Your task to perform on an android device: make emails show in primary in the gmail app Image 0: 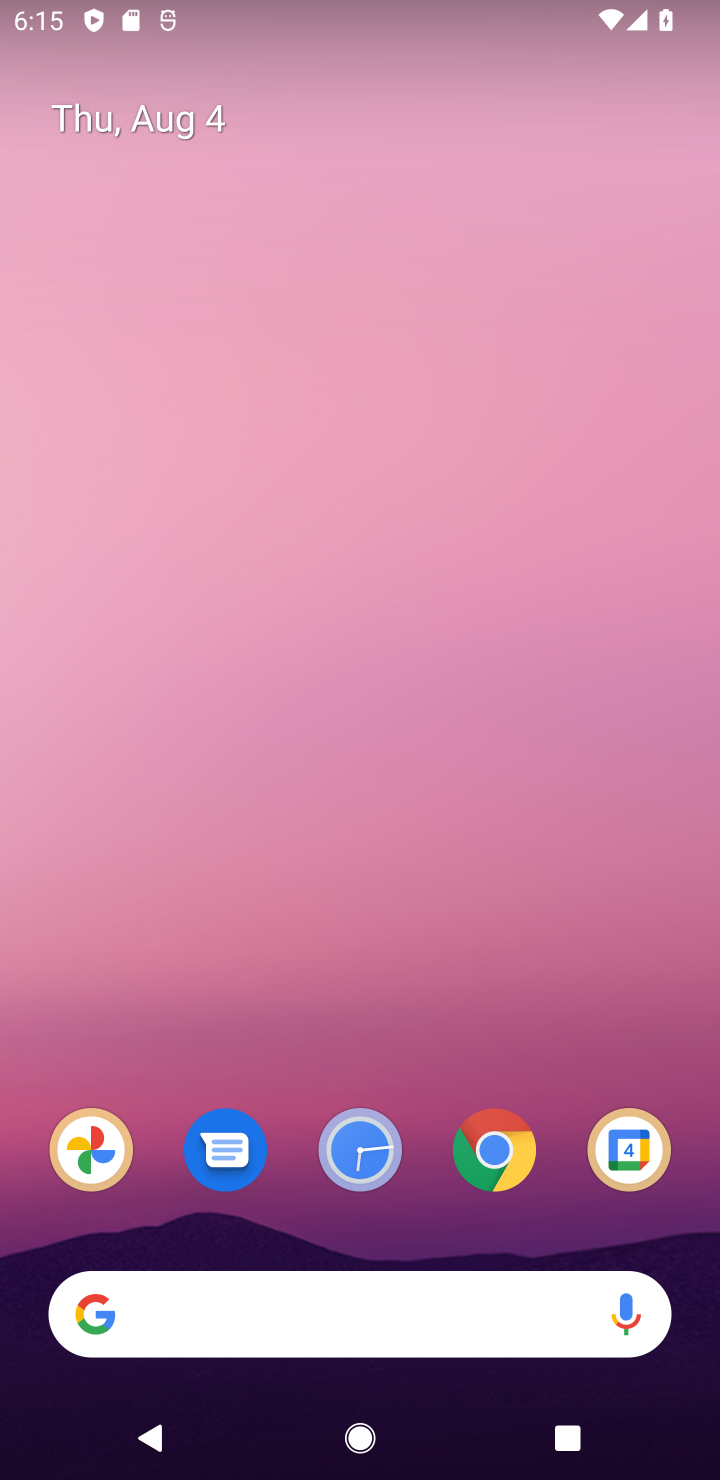
Step 0: drag from (382, 1188) to (215, 19)
Your task to perform on an android device: make emails show in primary in the gmail app Image 1: 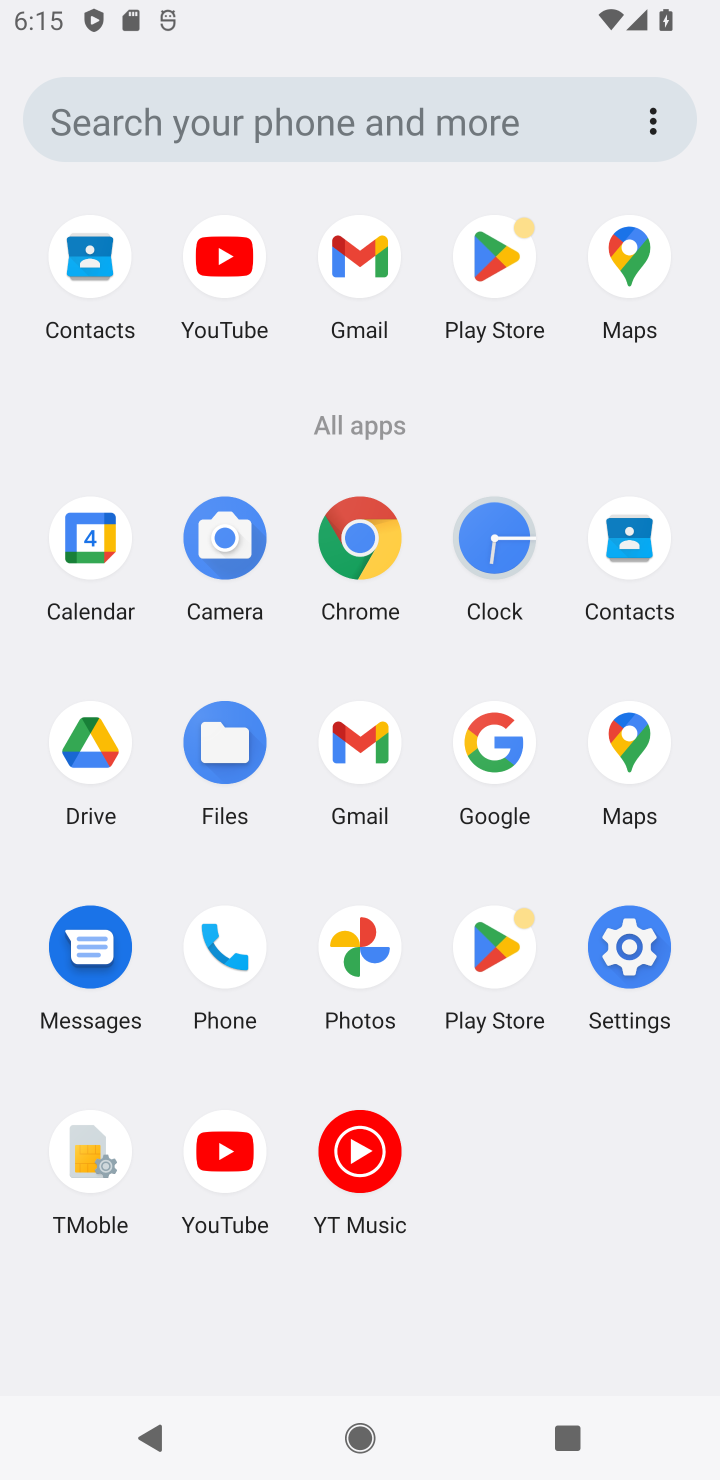
Step 1: click (347, 730)
Your task to perform on an android device: make emails show in primary in the gmail app Image 2: 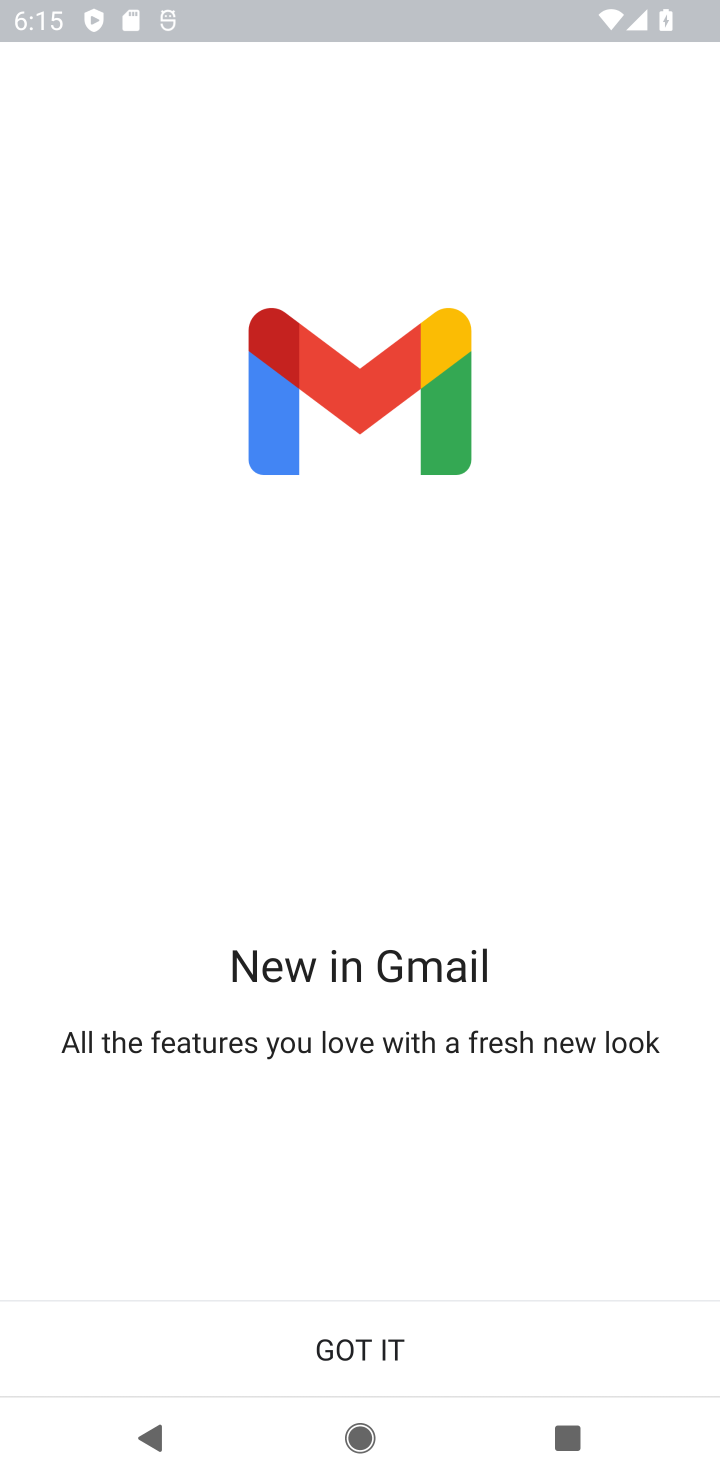
Step 2: click (408, 1345)
Your task to perform on an android device: make emails show in primary in the gmail app Image 3: 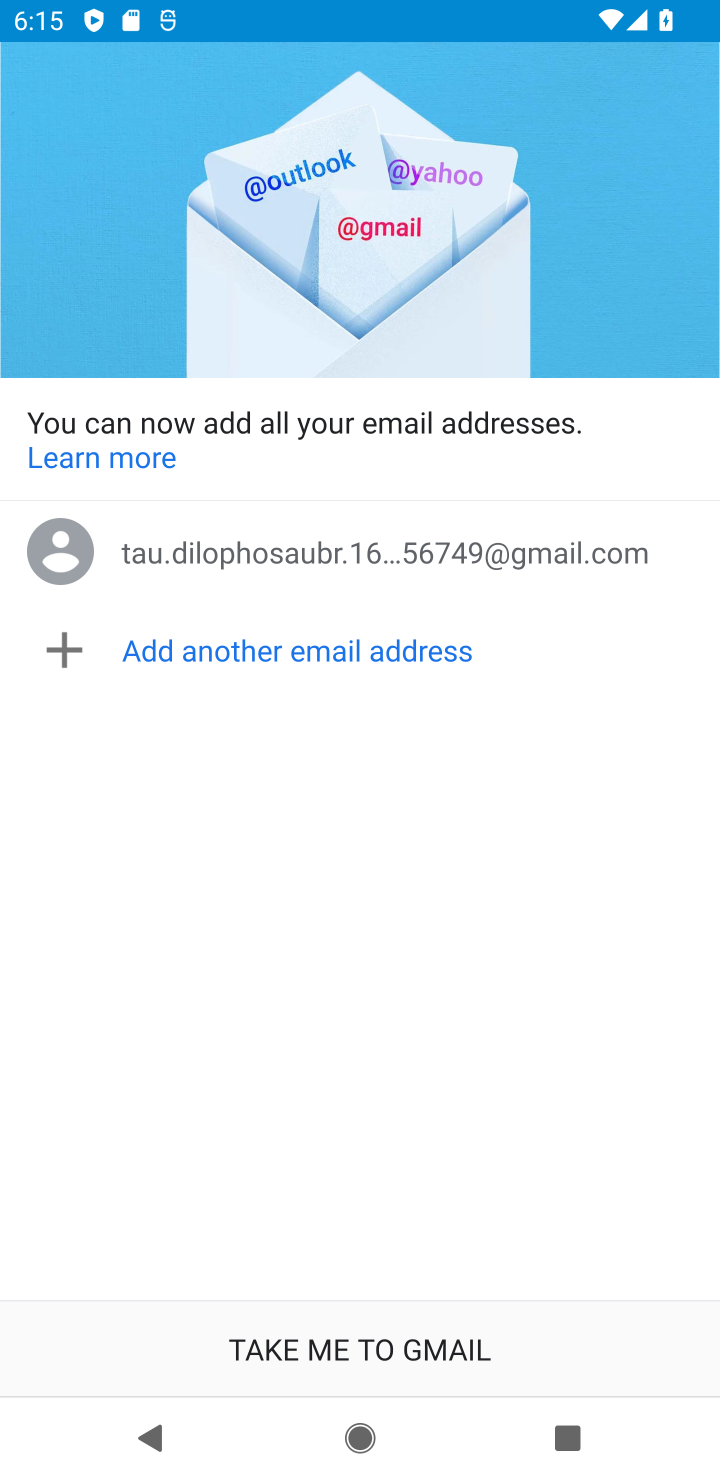
Step 3: click (408, 1345)
Your task to perform on an android device: make emails show in primary in the gmail app Image 4: 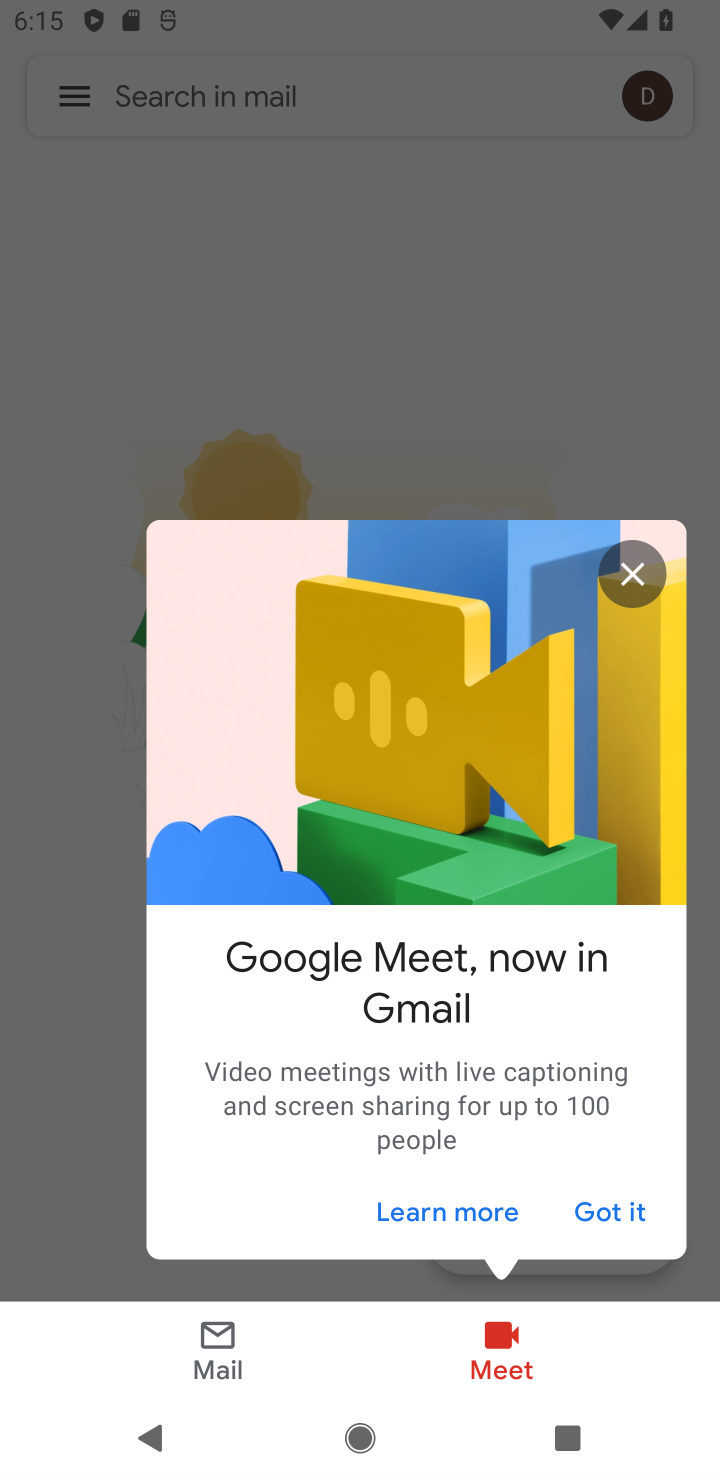
Step 4: click (624, 1200)
Your task to perform on an android device: make emails show in primary in the gmail app Image 5: 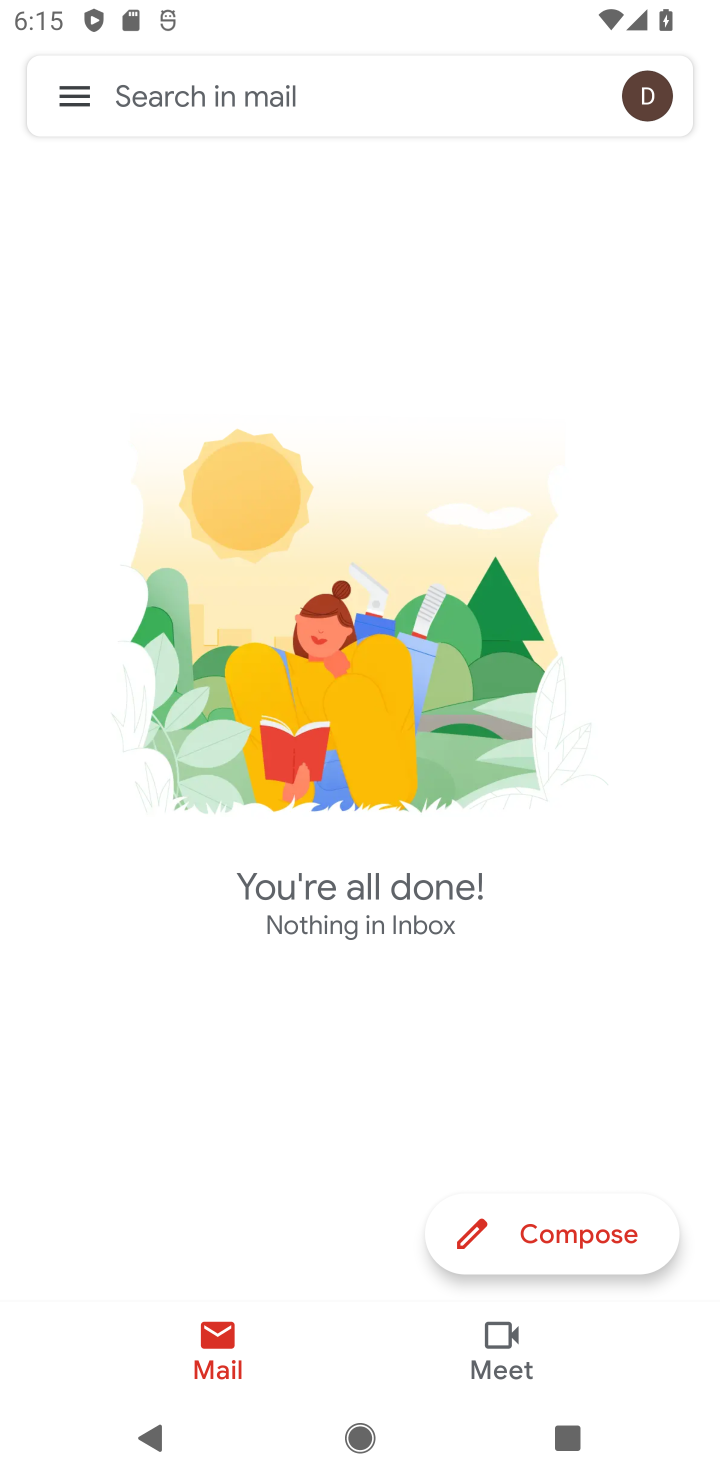
Step 5: click (77, 87)
Your task to perform on an android device: make emails show in primary in the gmail app Image 6: 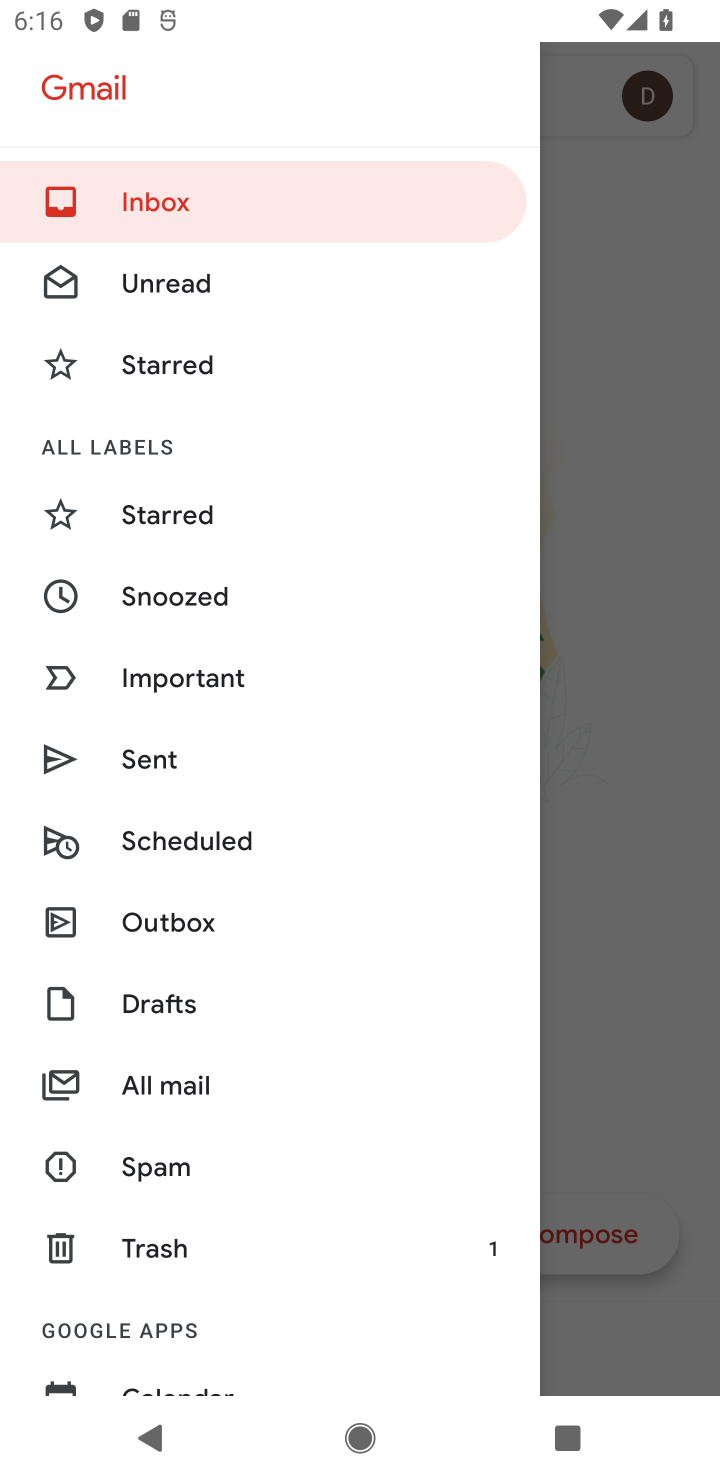
Step 6: drag from (74, 1316) to (134, 344)
Your task to perform on an android device: make emails show in primary in the gmail app Image 7: 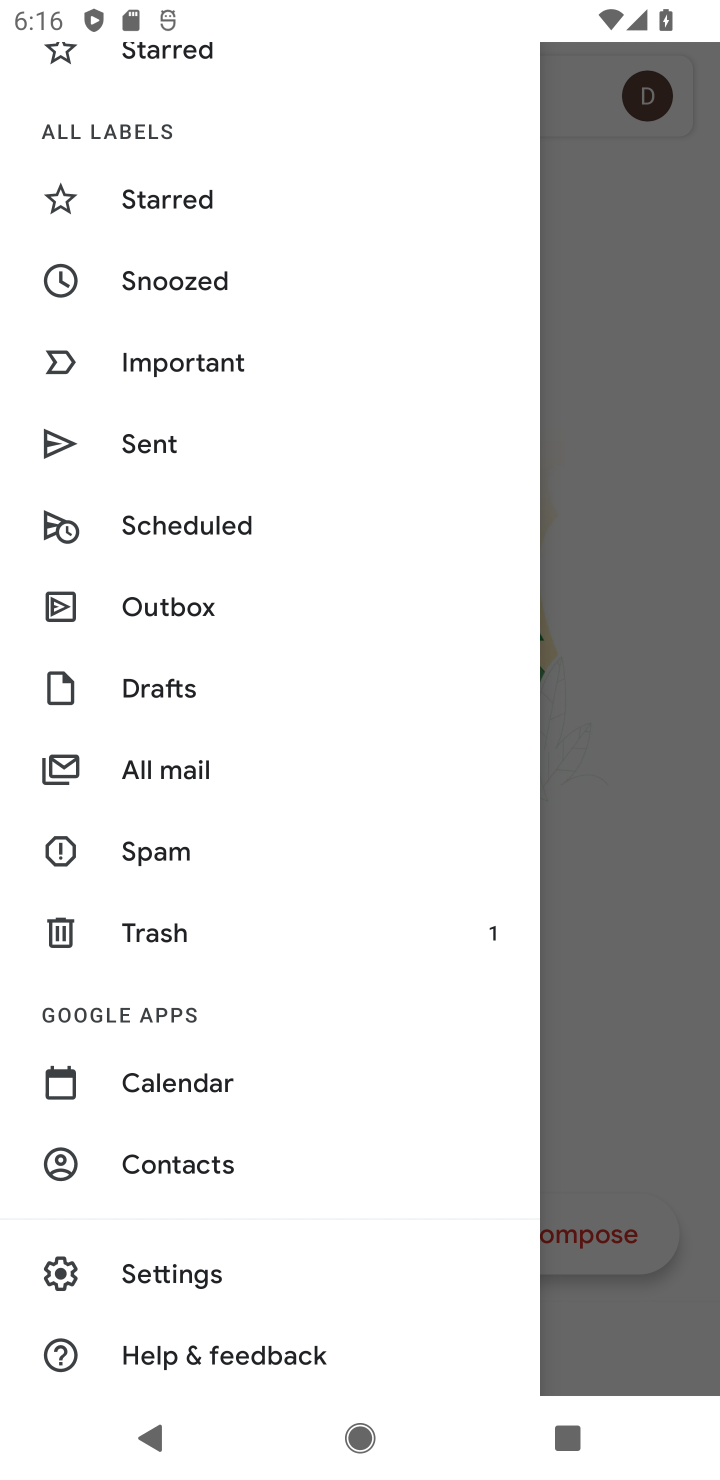
Step 7: click (206, 1286)
Your task to perform on an android device: make emails show in primary in the gmail app Image 8: 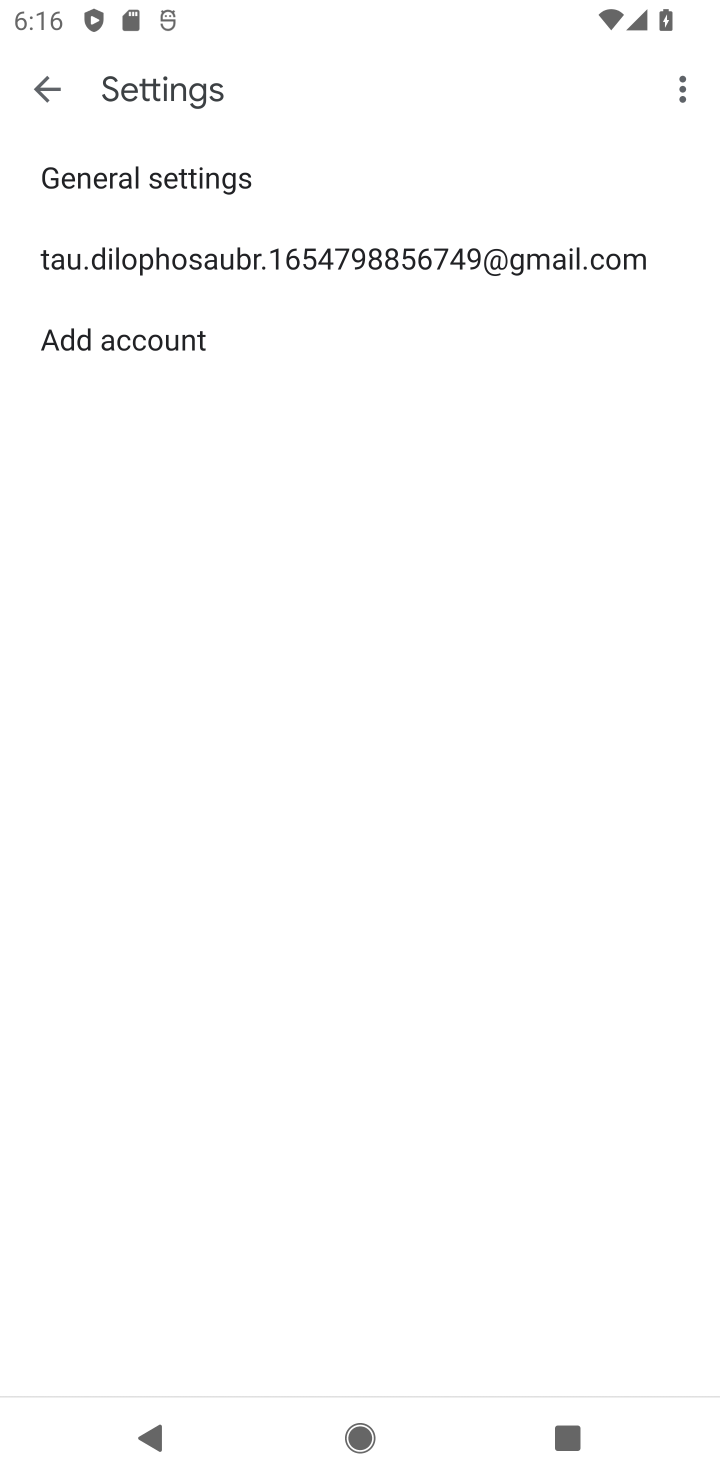
Step 8: click (483, 256)
Your task to perform on an android device: make emails show in primary in the gmail app Image 9: 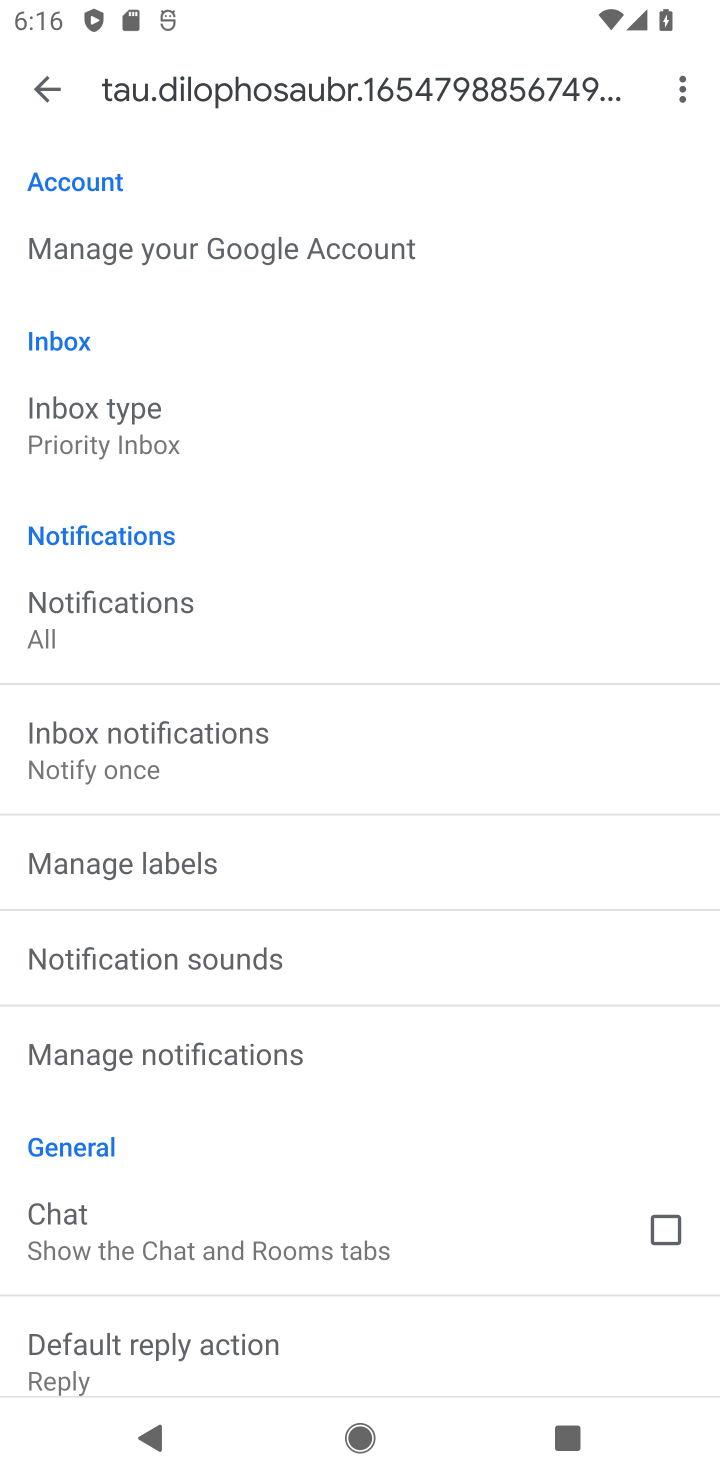
Step 9: press back button
Your task to perform on an android device: make emails show in primary in the gmail app Image 10: 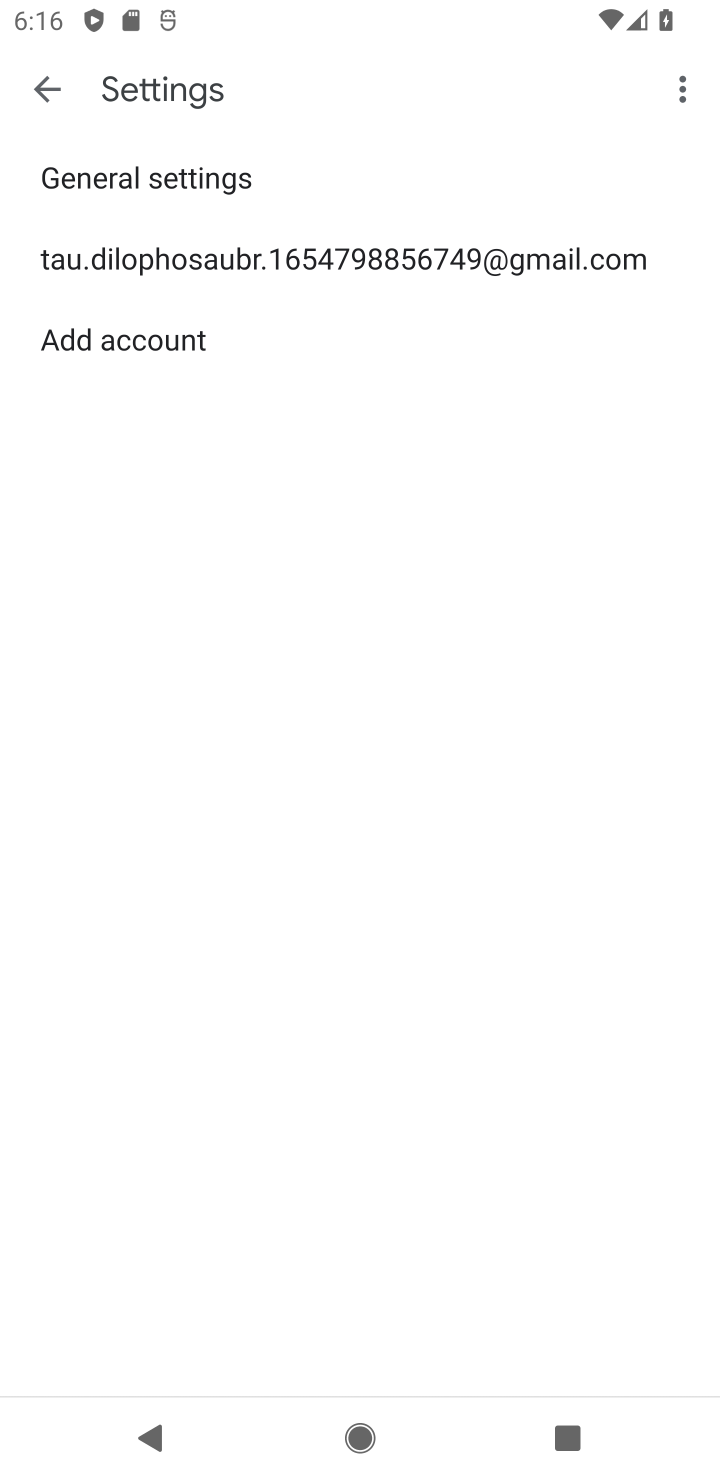
Step 10: click (121, 256)
Your task to perform on an android device: make emails show in primary in the gmail app Image 11: 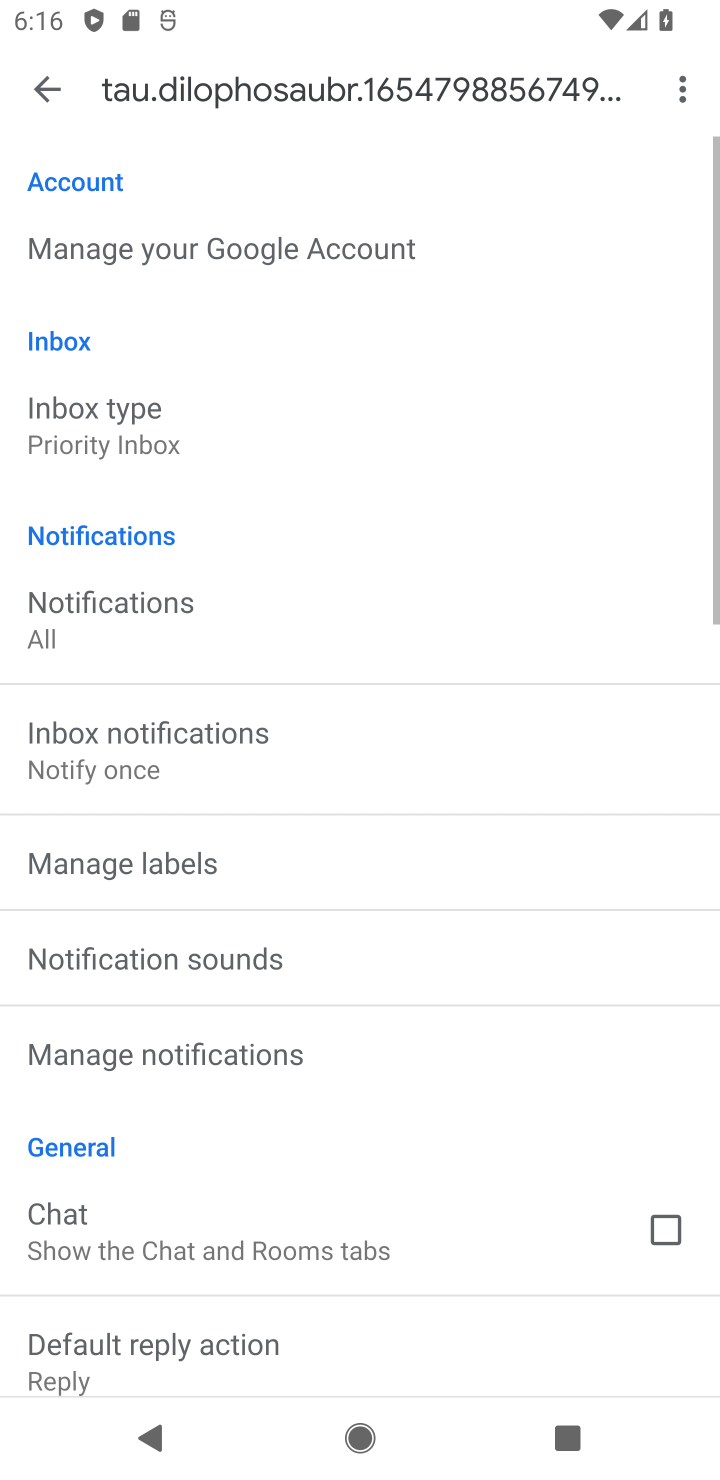
Step 11: click (130, 442)
Your task to perform on an android device: make emails show in primary in the gmail app Image 12: 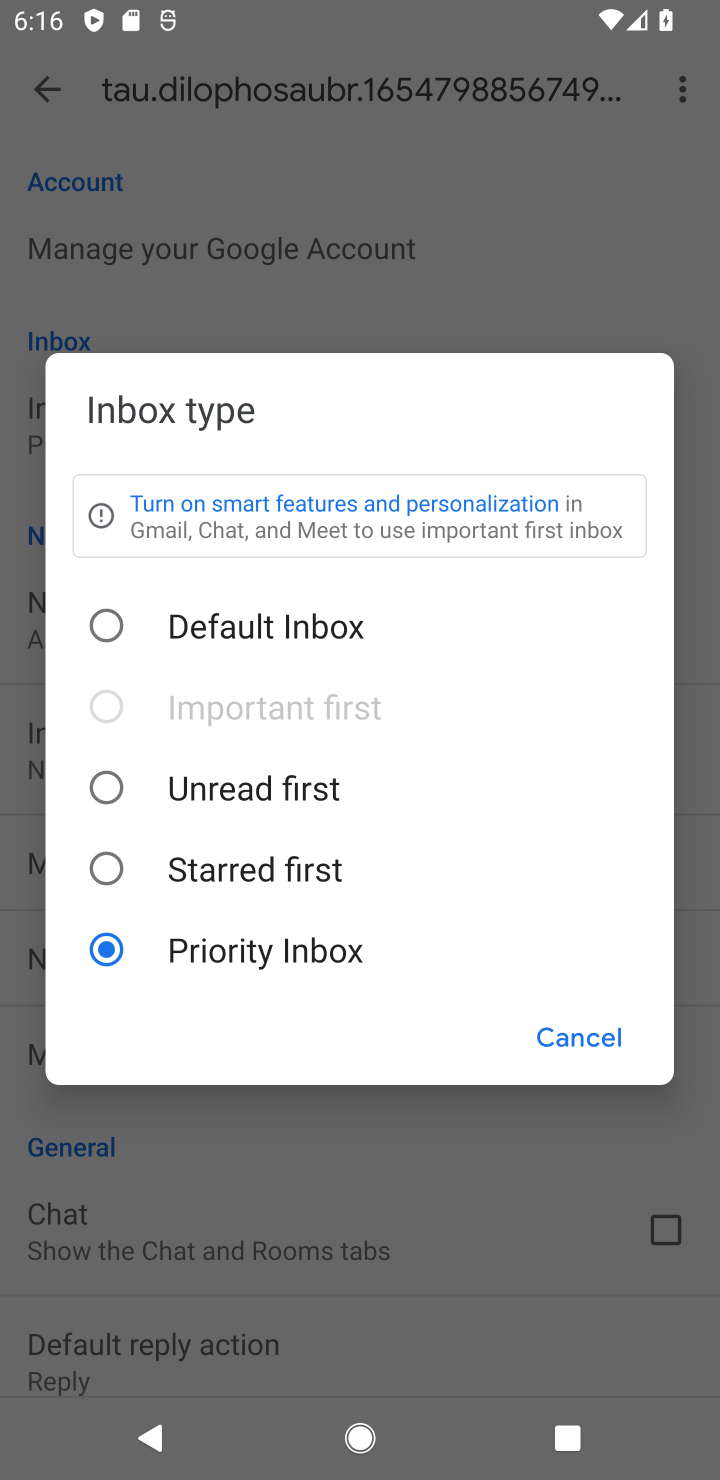
Step 12: click (92, 613)
Your task to perform on an android device: make emails show in primary in the gmail app Image 13: 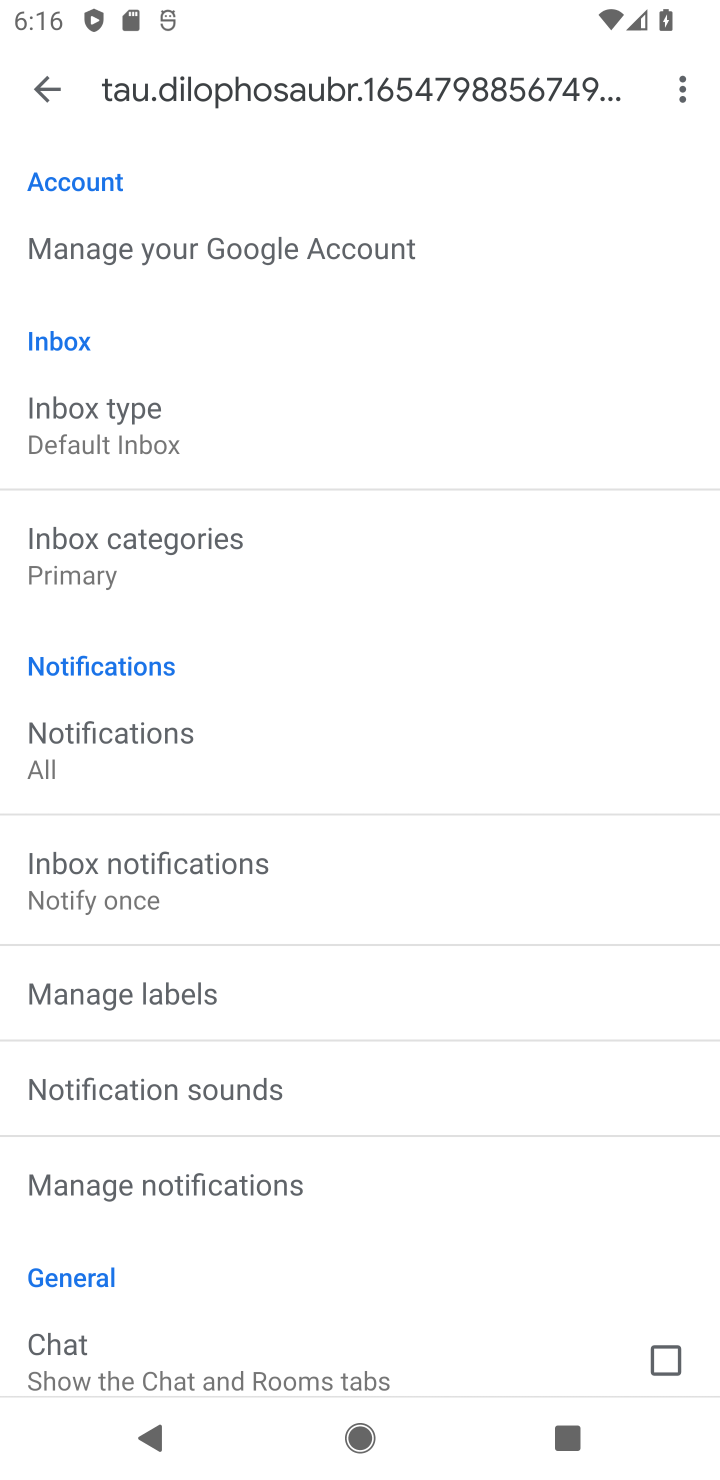
Step 13: press back button
Your task to perform on an android device: make emails show in primary in the gmail app Image 14: 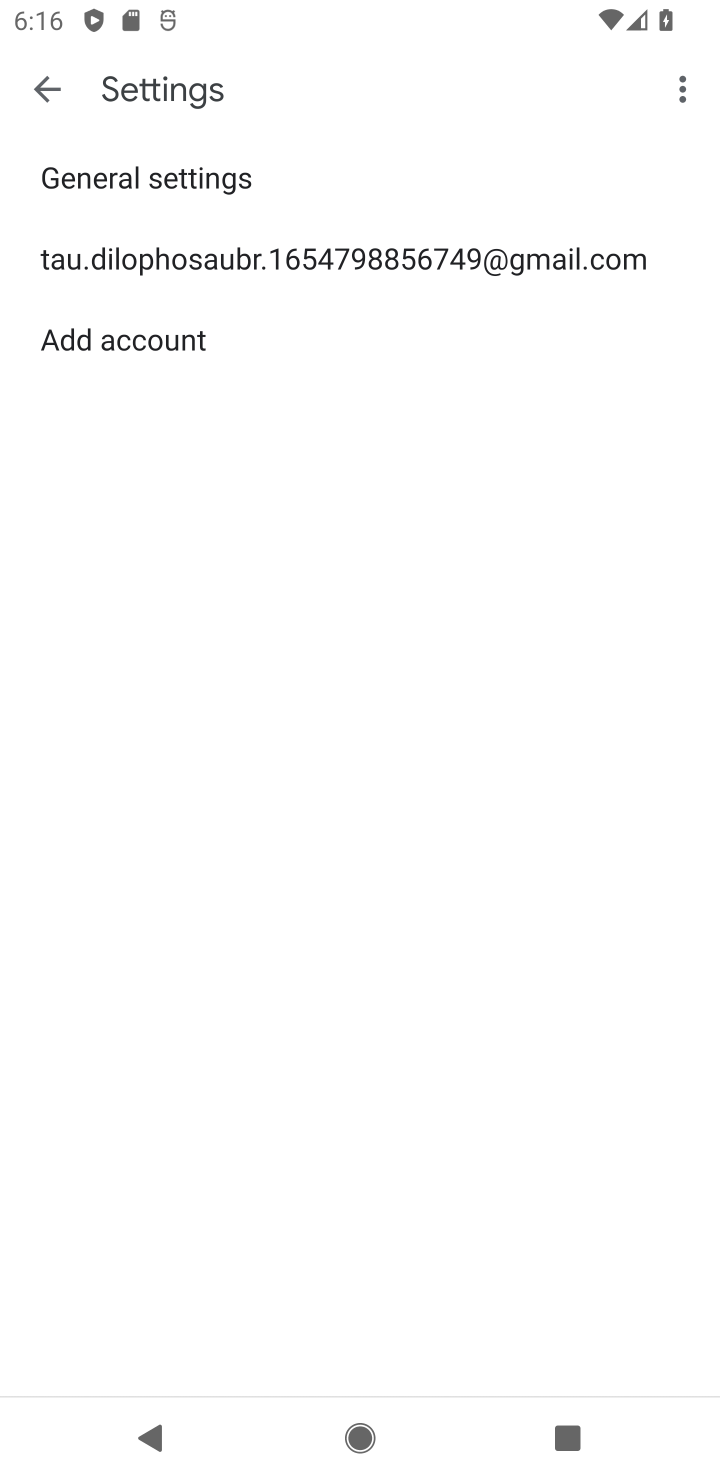
Step 14: press back button
Your task to perform on an android device: make emails show in primary in the gmail app Image 15: 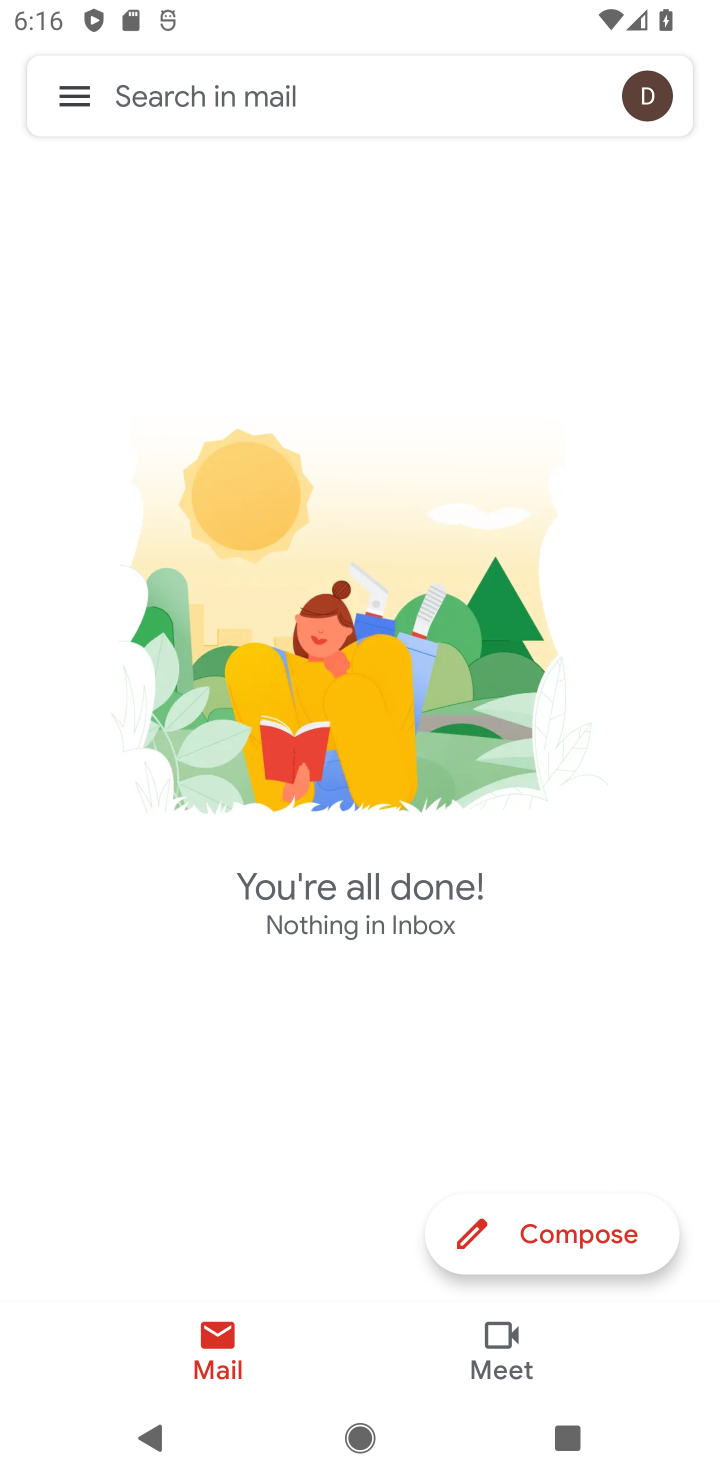
Step 15: click (58, 100)
Your task to perform on an android device: make emails show in primary in the gmail app Image 16: 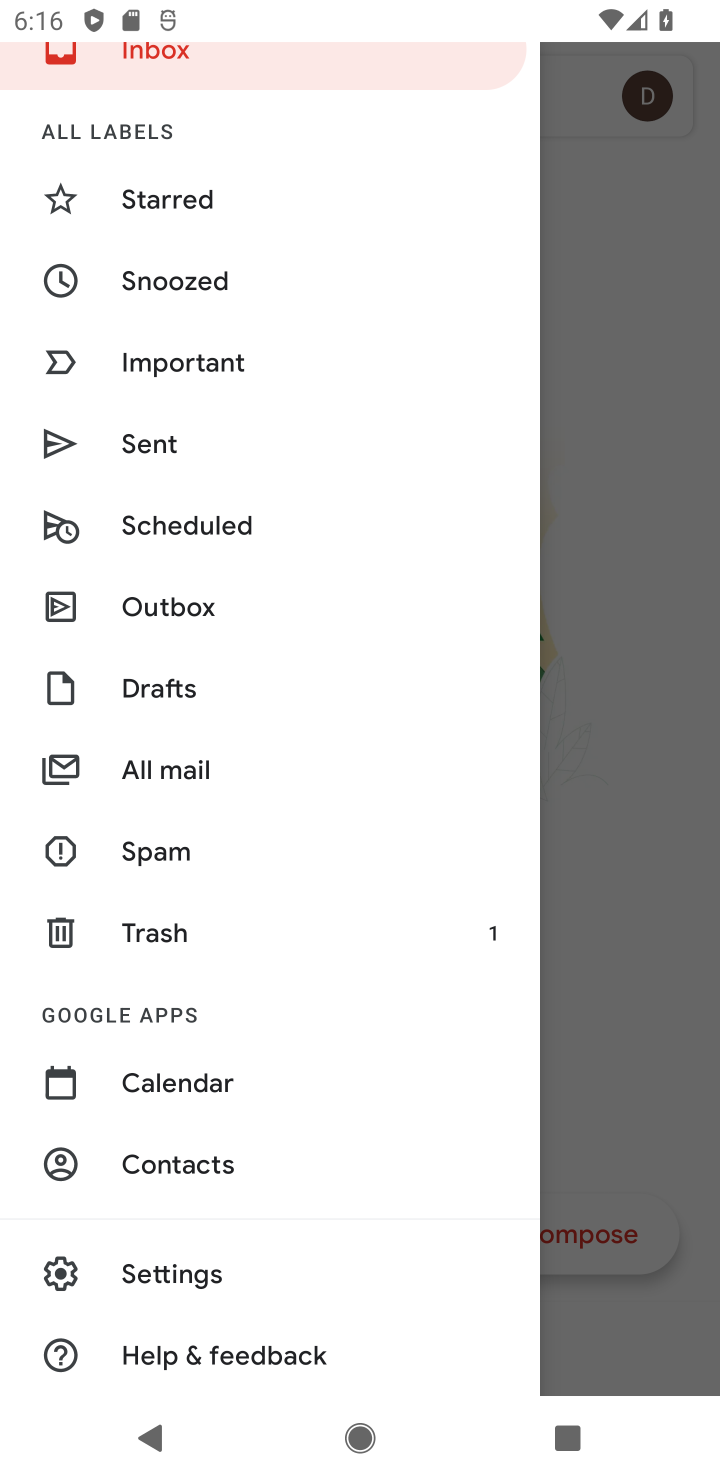
Step 16: task complete